Your task to perform on an android device: Open calendar and show me the second week of next month Image 0: 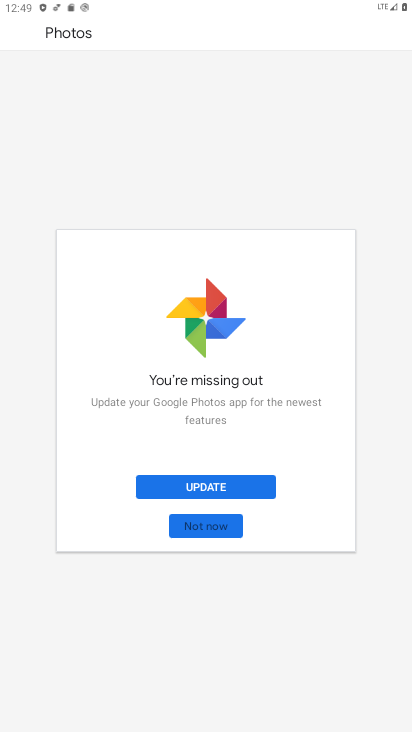
Step 0: press home button
Your task to perform on an android device: Open calendar and show me the second week of next month Image 1: 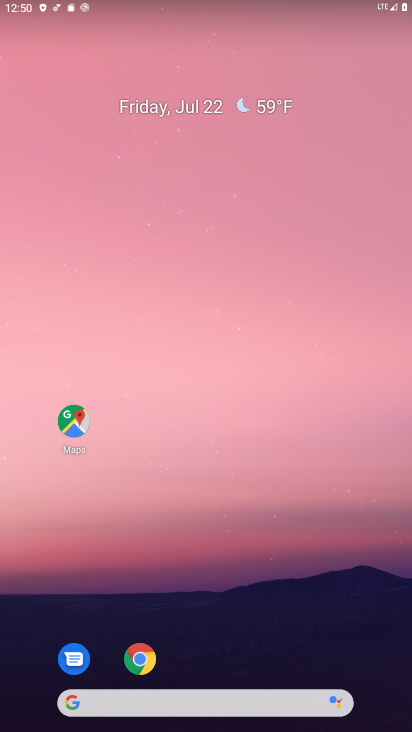
Step 1: drag from (203, 532) to (203, 246)
Your task to perform on an android device: Open calendar and show me the second week of next month Image 2: 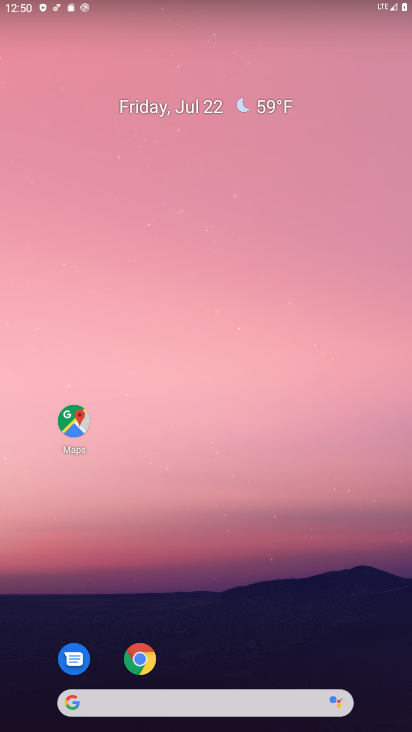
Step 2: drag from (236, 639) to (236, 148)
Your task to perform on an android device: Open calendar and show me the second week of next month Image 3: 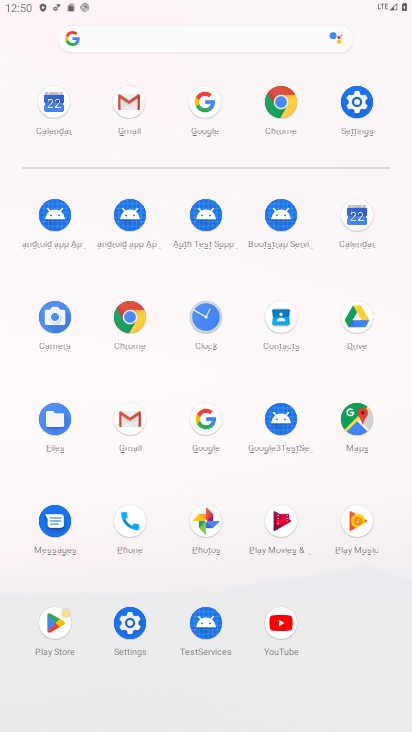
Step 3: click (343, 239)
Your task to perform on an android device: Open calendar and show me the second week of next month Image 4: 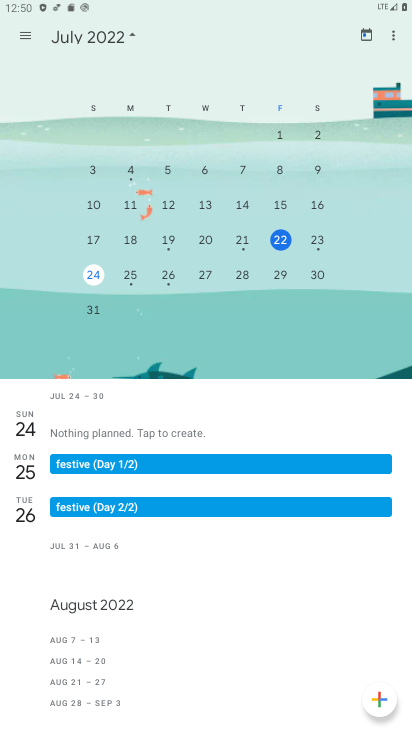
Step 4: click (397, 31)
Your task to perform on an android device: Open calendar and show me the second week of next month Image 5: 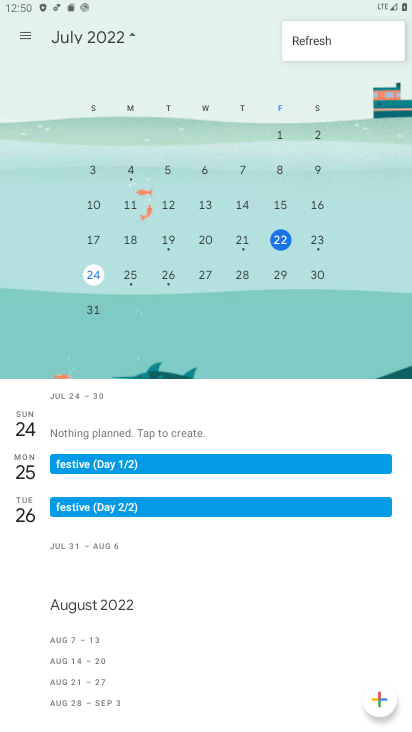
Step 5: click (349, 220)
Your task to perform on an android device: Open calendar and show me the second week of next month Image 6: 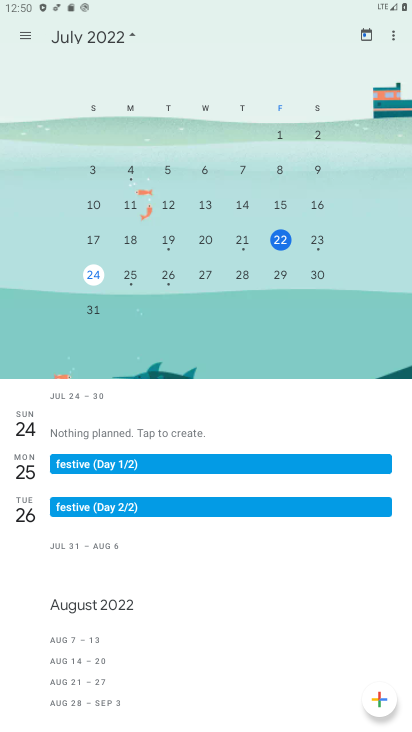
Step 6: drag from (362, 214) to (4, 190)
Your task to perform on an android device: Open calendar and show me the second week of next month Image 7: 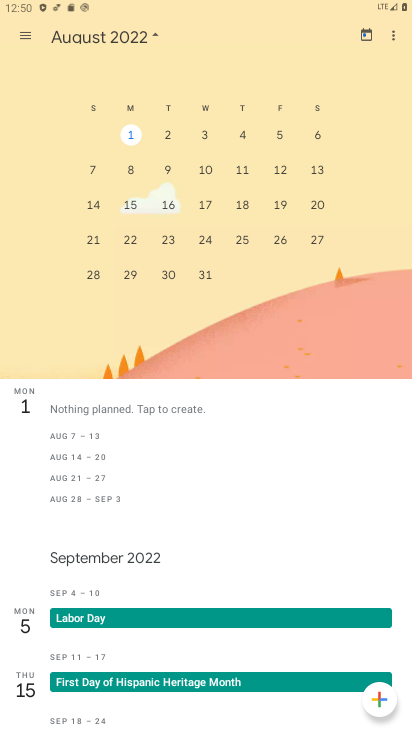
Step 7: click (94, 167)
Your task to perform on an android device: Open calendar and show me the second week of next month Image 8: 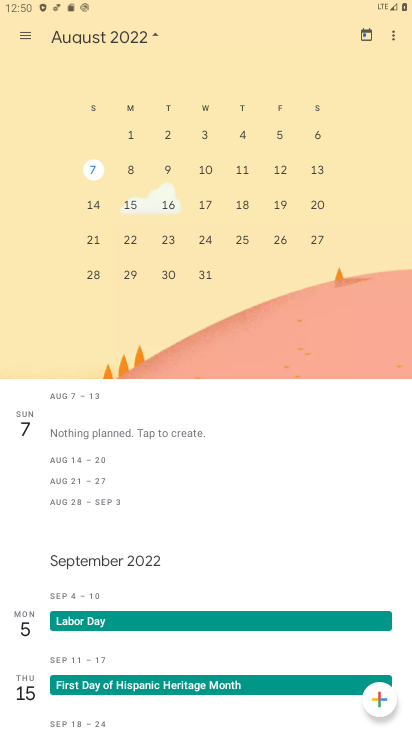
Step 8: task complete